Your task to perform on an android device: Go to wifi settings Image 0: 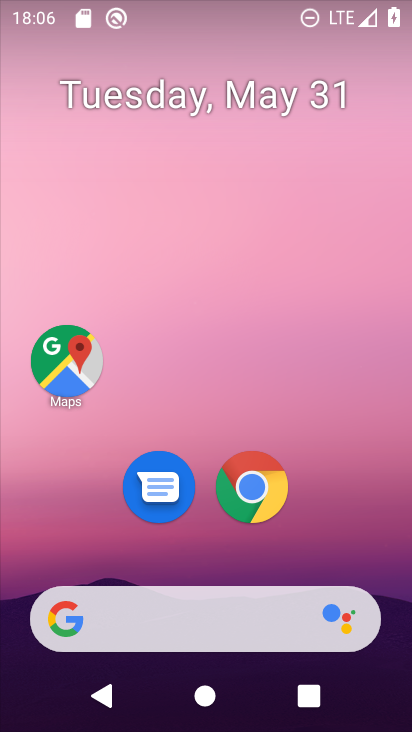
Step 0: drag from (345, 523) to (257, 125)
Your task to perform on an android device: Go to wifi settings Image 1: 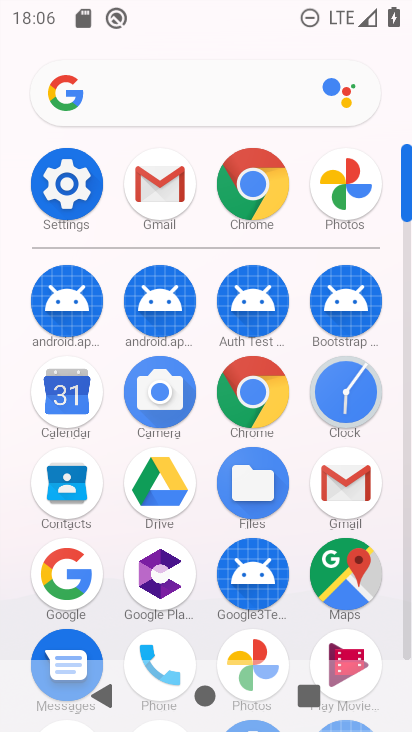
Step 1: click (66, 184)
Your task to perform on an android device: Go to wifi settings Image 2: 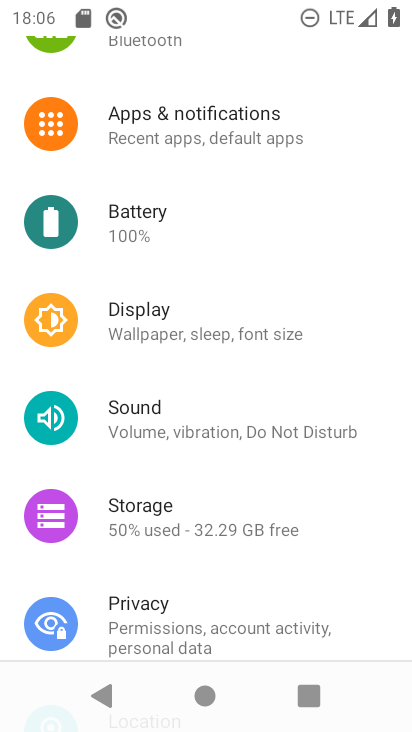
Step 2: drag from (210, 159) to (261, 665)
Your task to perform on an android device: Go to wifi settings Image 3: 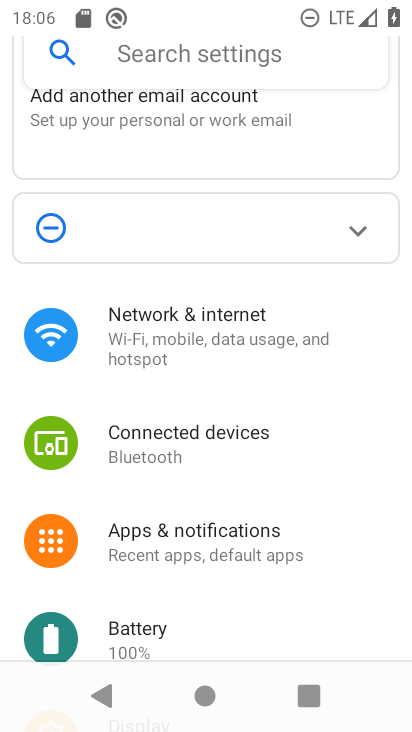
Step 3: click (170, 322)
Your task to perform on an android device: Go to wifi settings Image 4: 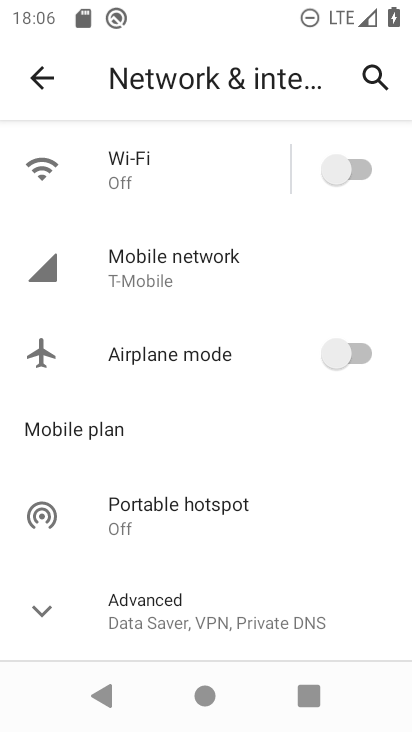
Step 4: click (167, 171)
Your task to perform on an android device: Go to wifi settings Image 5: 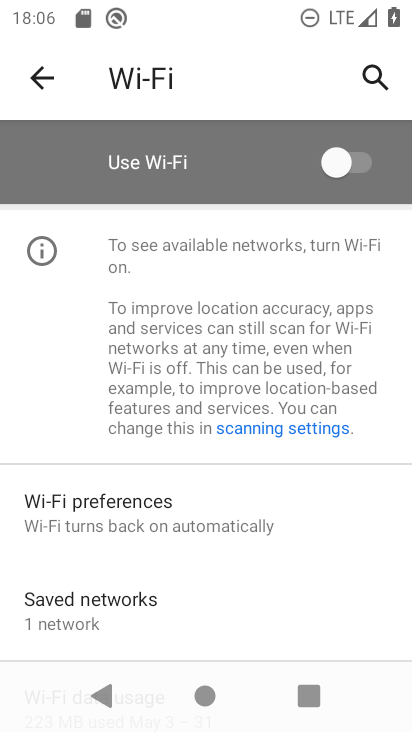
Step 5: task complete